Your task to perform on an android device: turn on sleep mode Image 0: 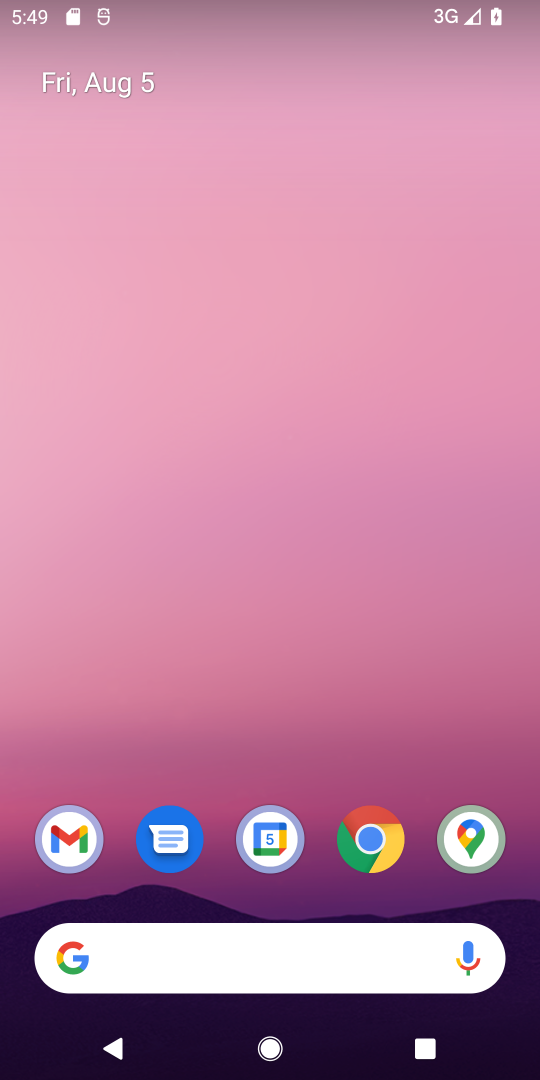
Step 0: drag from (257, 756) to (255, 168)
Your task to perform on an android device: turn on sleep mode Image 1: 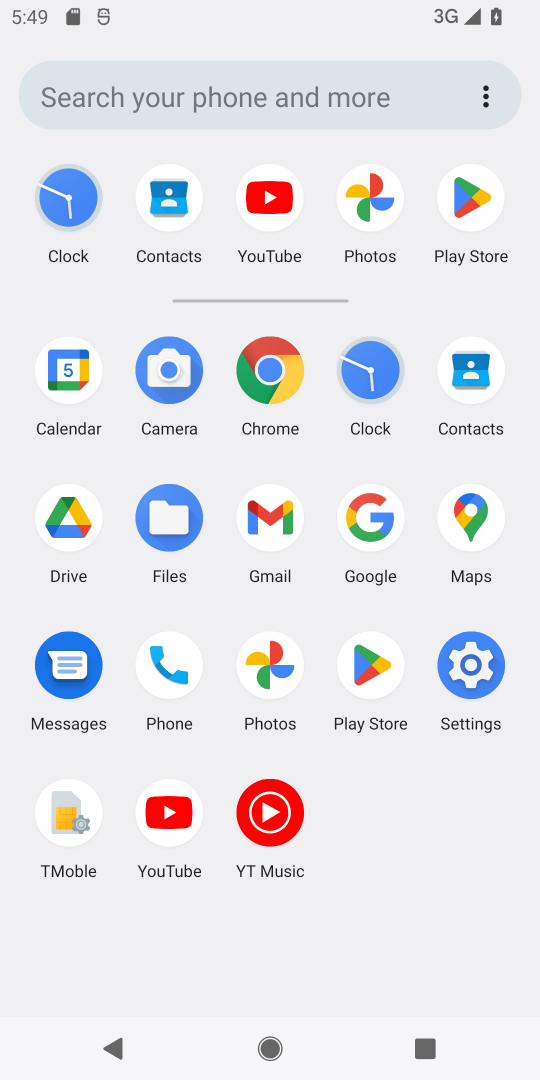
Step 1: click (475, 680)
Your task to perform on an android device: turn on sleep mode Image 2: 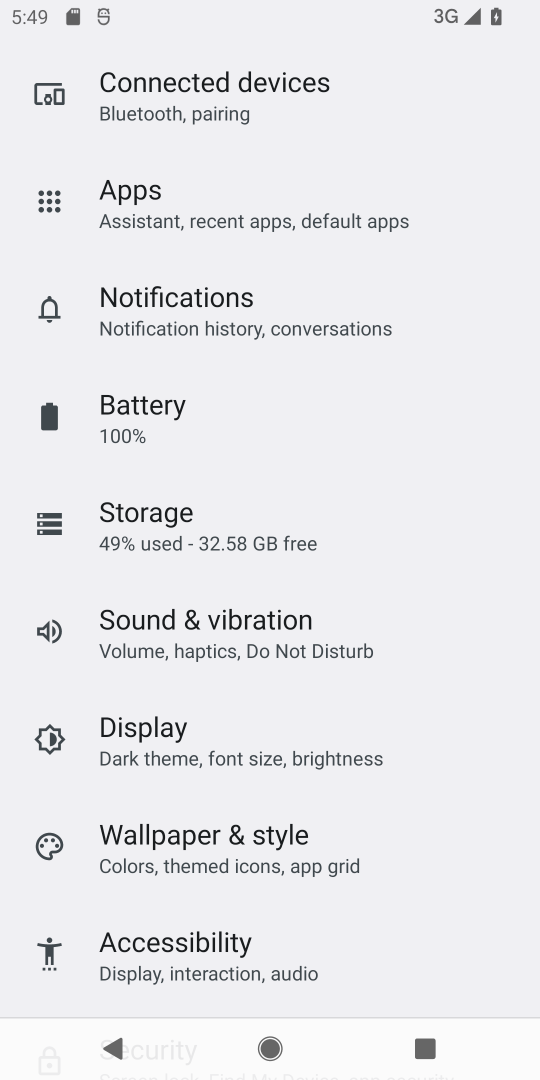
Step 2: click (208, 729)
Your task to perform on an android device: turn on sleep mode Image 3: 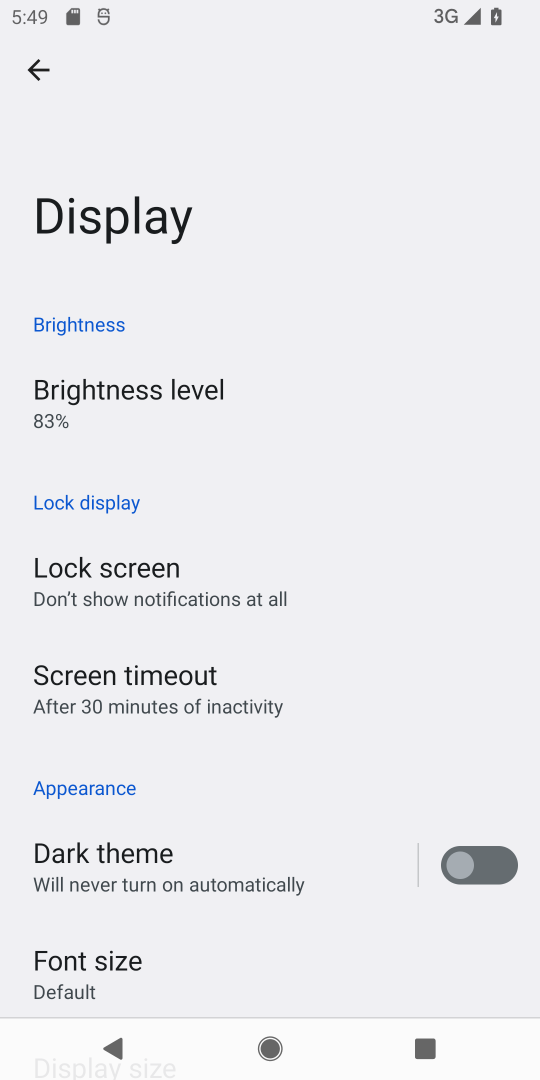
Step 3: click (182, 695)
Your task to perform on an android device: turn on sleep mode Image 4: 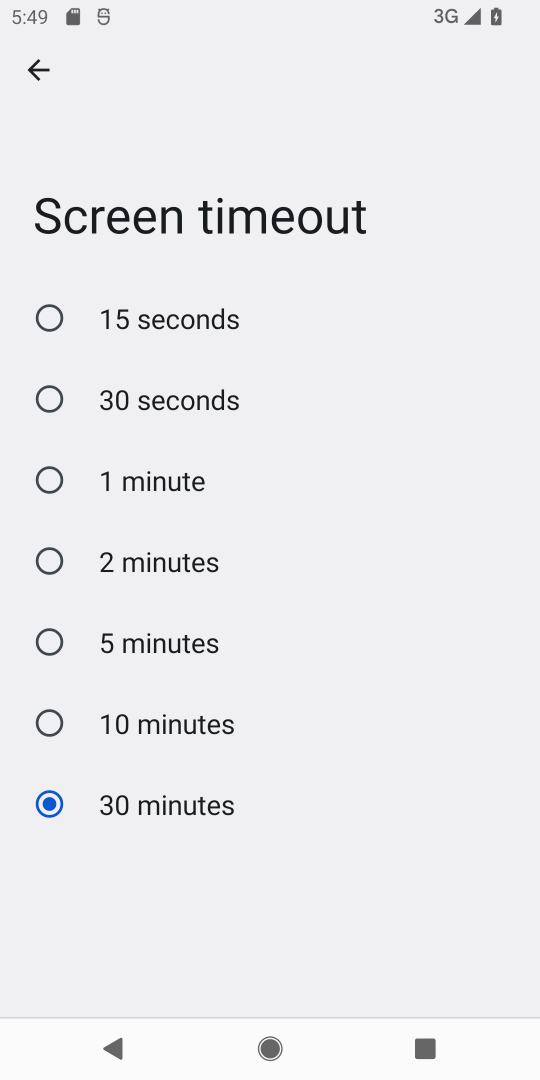
Step 4: click (133, 485)
Your task to perform on an android device: turn on sleep mode Image 5: 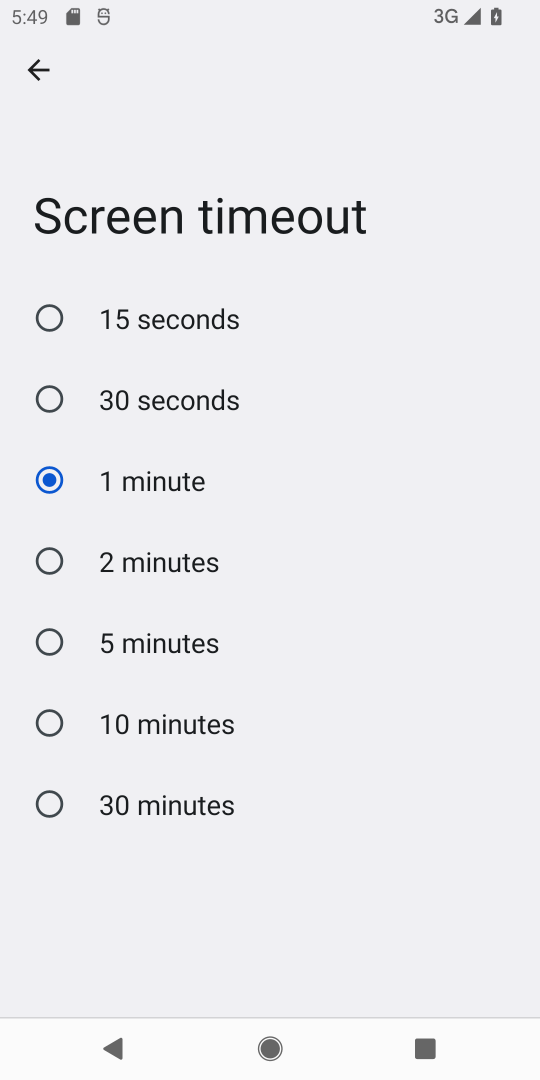
Step 5: task complete